Your task to perform on an android device: manage bookmarks in the chrome app Image 0: 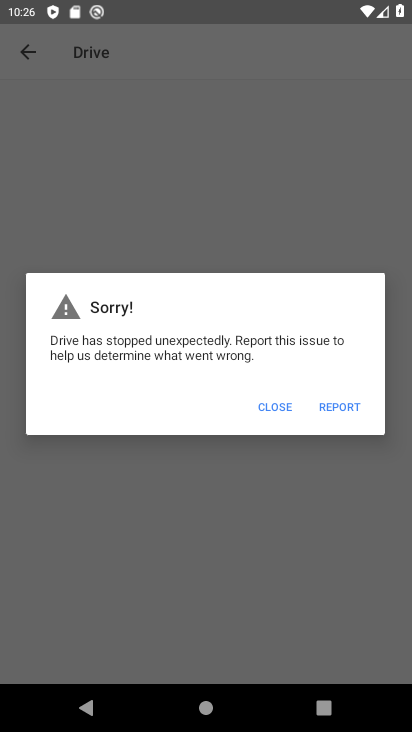
Step 0: press home button
Your task to perform on an android device: manage bookmarks in the chrome app Image 1: 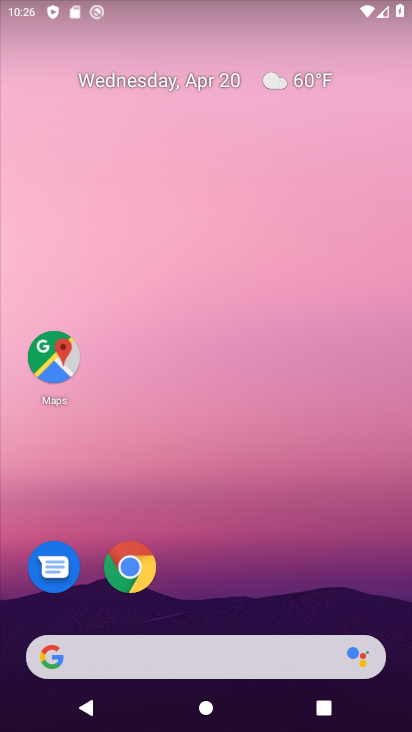
Step 1: drag from (344, 592) to (294, 83)
Your task to perform on an android device: manage bookmarks in the chrome app Image 2: 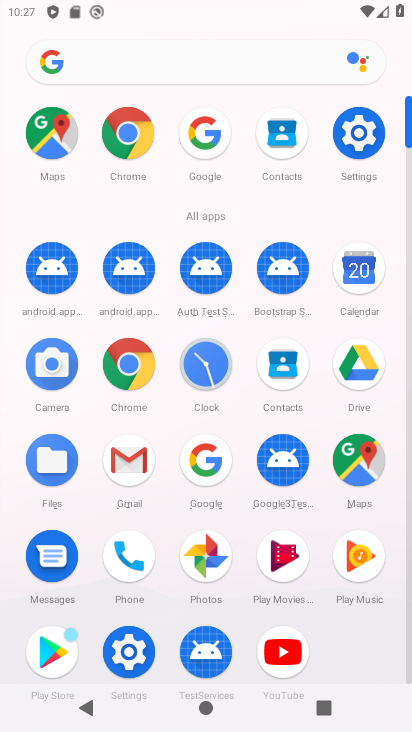
Step 2: click (135, 366)
Your task to perform on an android device: manage bookmarks in the chrome app Image 3: 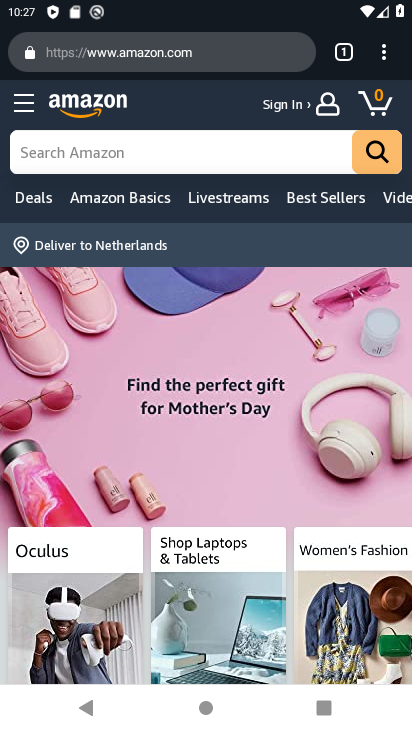
Step 3: click (381, 69)
Your task to perform on an android device: manage bookmarks in the chrome app Image 4: 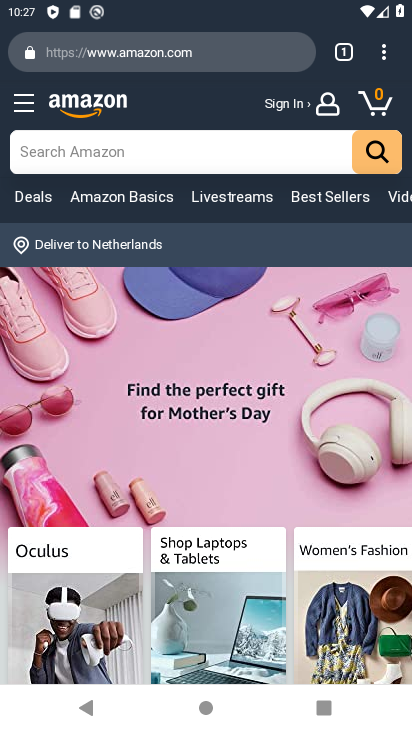
Step 4: click (381, 69)
Your task to perform on an android device: manage bookmarks in the chrome app Image 5: 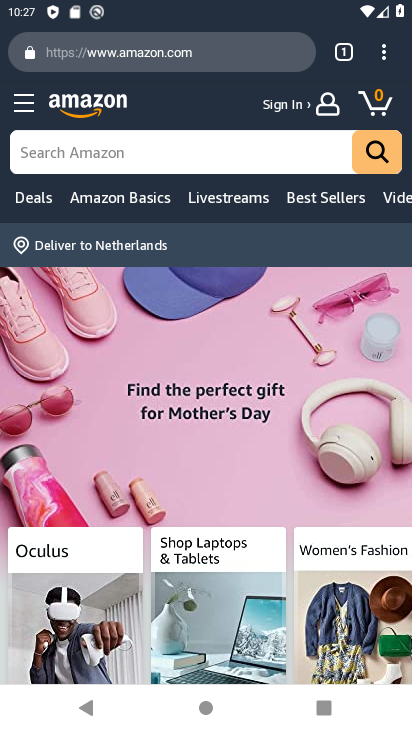
Step 5: click (381, 69)
Your task to perform on an android device: manage bookmarks in the chrome app Image 6: 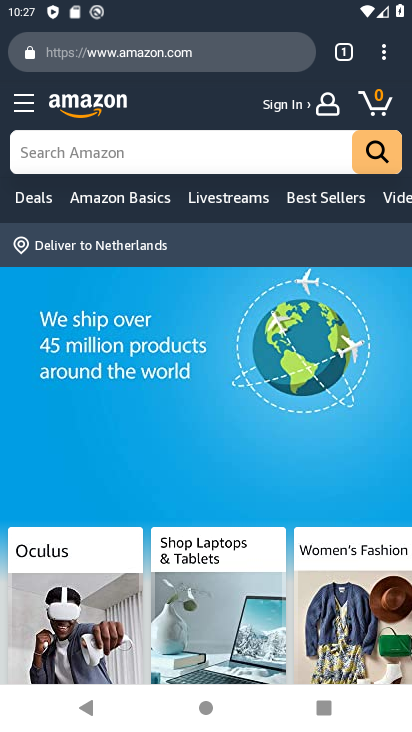
Step 6: click (386, 65)
Your task to perform on an android device: manage bookmarks in the chrome app Image 7: 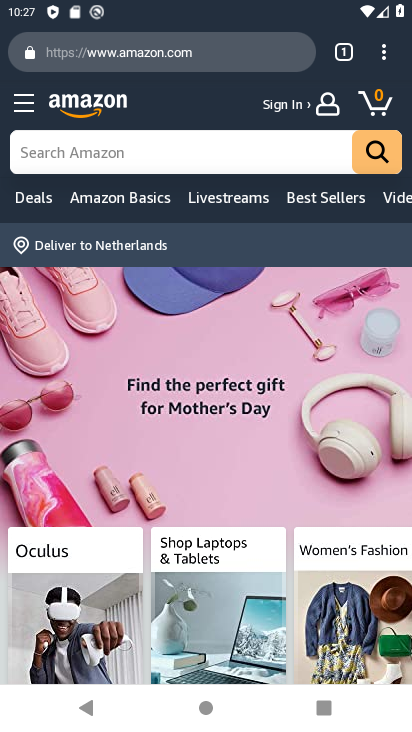
Step 7: click (384, 49)
Your task to perform on an android device: manage bookmarks in the chrome app Image 8: 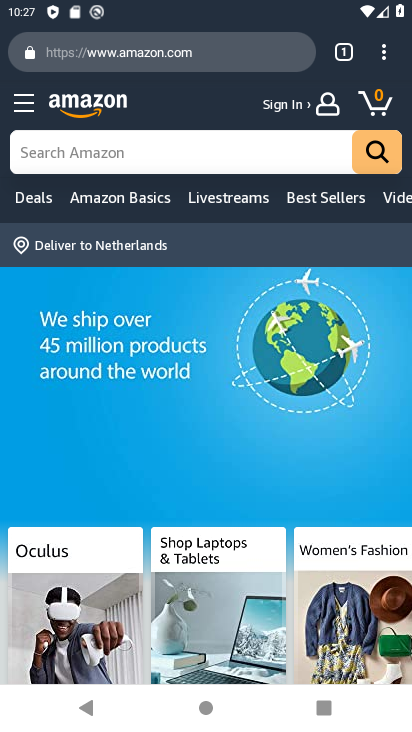
Step 8: click (389, 63)
Your task to perform on an android device: manage bookmarks in the chrome app Image 9: 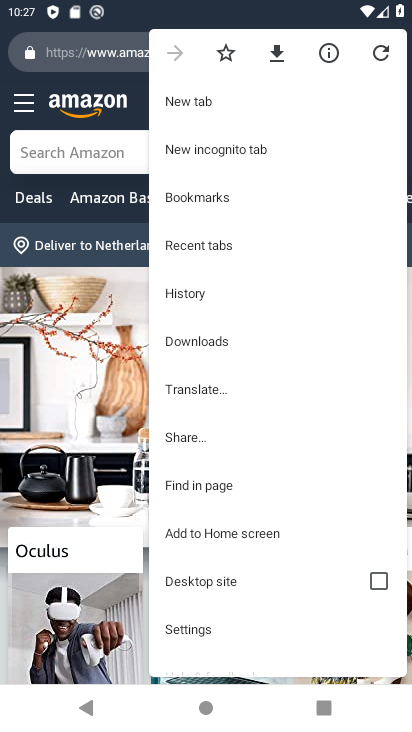
Step 9: click (210, 197)
Your task to perform on an android device: manage bookmarks in the chrome app Image 10: 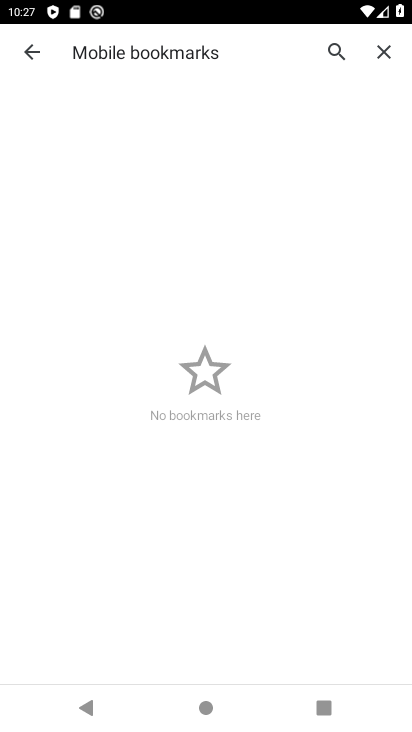
Step 10: task complete